Your task to perform on an android device: turn notification dots off Image 0: 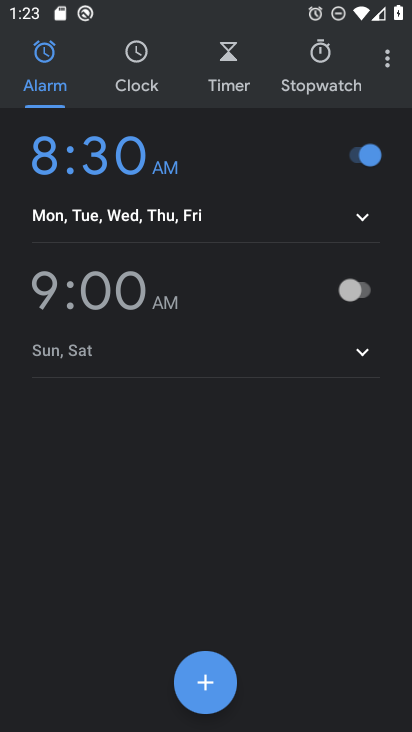
Step 0: press home button
Your task to perform on an android device: turn notification dots off Image 1: 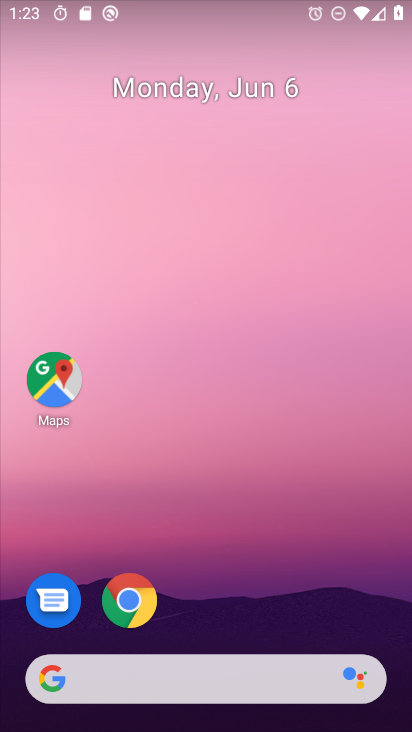
Step 1: drag from (270, 606) to (253, 212)
Your task to perform on an android device: turn notification dots off Image 2: 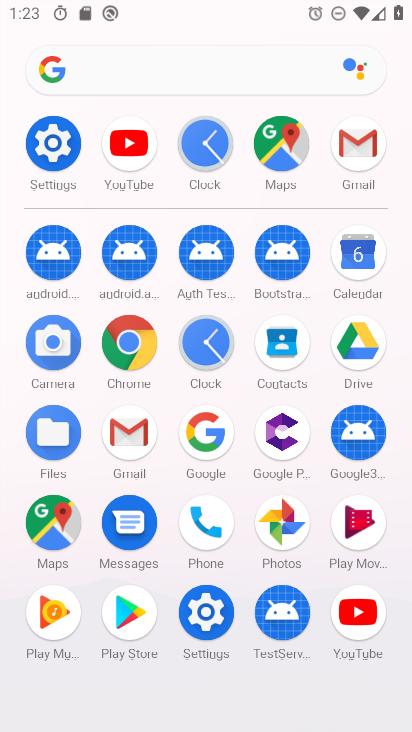
Step 2: click (55, 147)
Your task to perform on an android device: turn notification dots off Image 3: 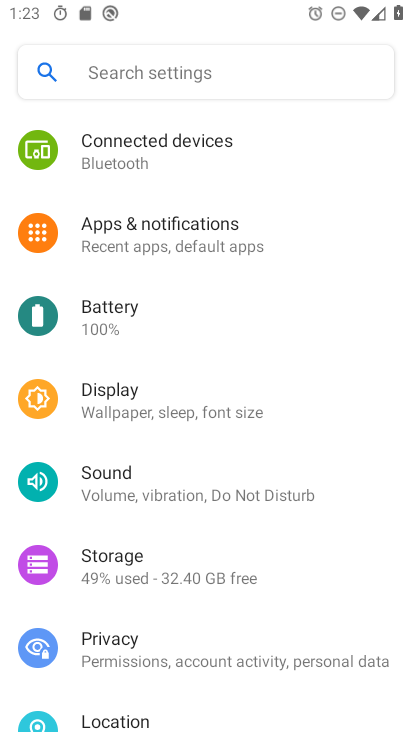
Step 3: click (200, 237)
Your task to perform on an android device: turn notification dots off Image 4: 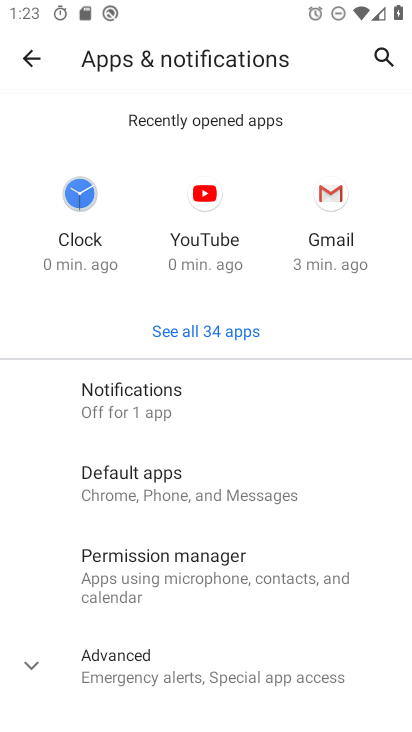
Step 4: click (199, 400)
Your task to perform on an android device: turn notification dots off Image 5: 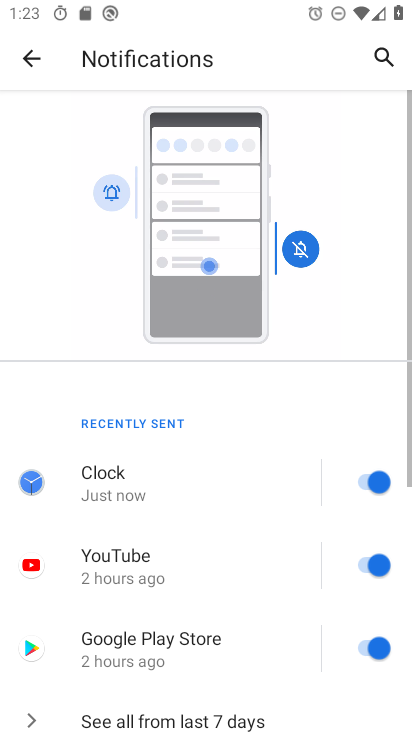
Step 5: drag from (299, 635) to (303, 212)
Your task to perform on an android device: turn notification dots off Image 6: 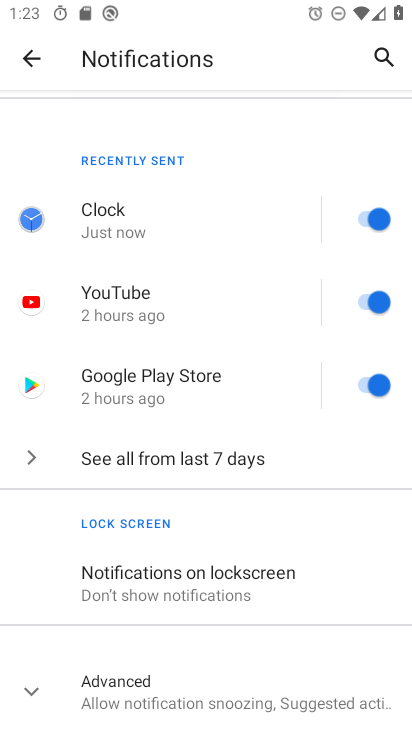
Step 6: drag from (238, 662) to (258, 357)
Your task to perform on an android device: turn notification dots off Image 7: 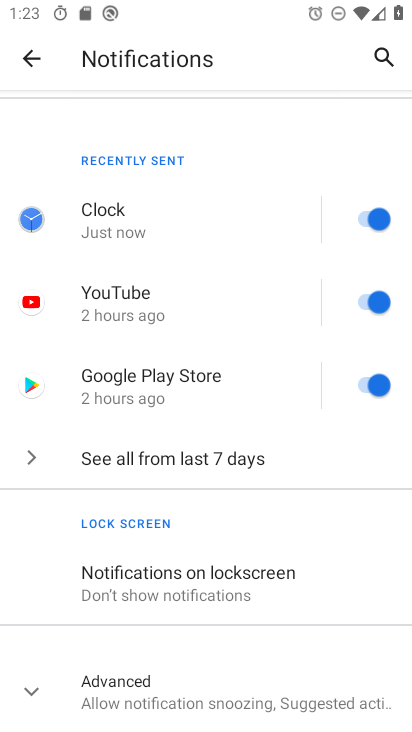
Step 7: click (210, 685)
Your task to perform on an android device: turn notification dots off Image 8: 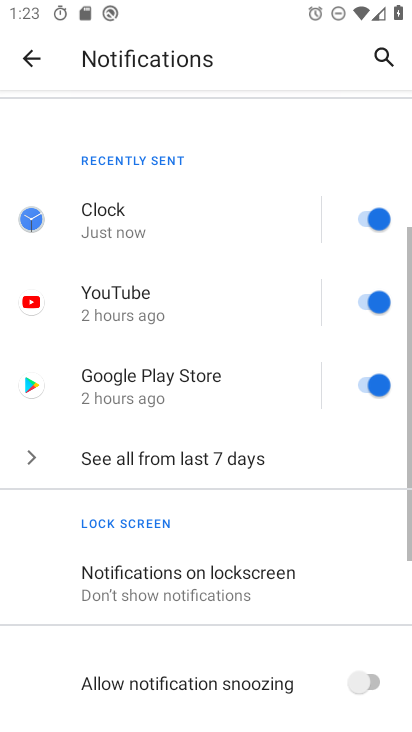
Step 8: drag from (220, 589) to (231, 229)
Your task to perform on an android device: turn notification dots off Image 9: 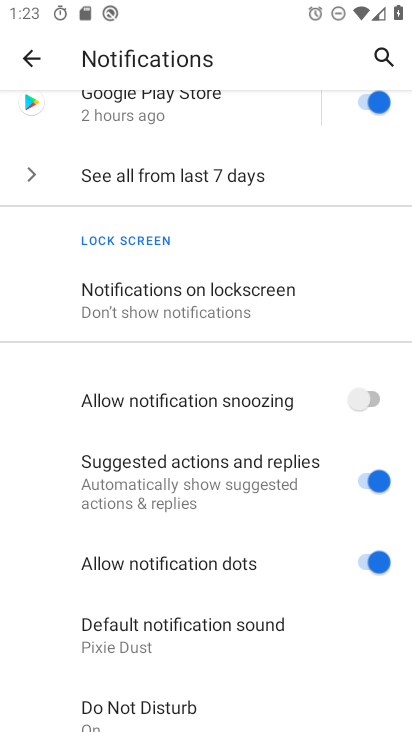
Step 9: drag from (282, 611) to (318, 325)
Your task to perform on an android device: turn notification dots off Image 10: 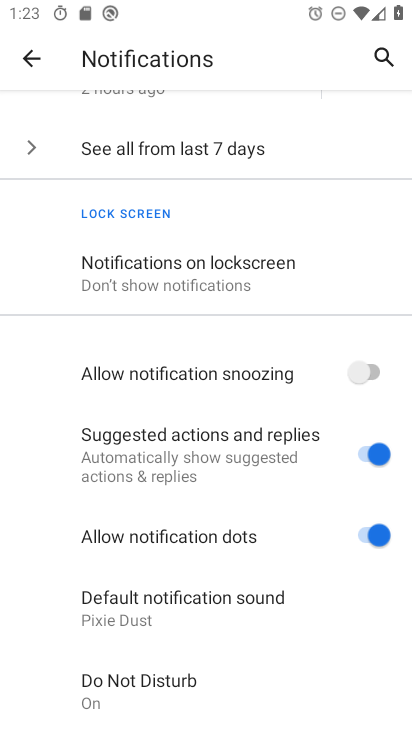
Step 10: click (356, 526)
Your task to perform on an android device: turn notification dots off Image 11: 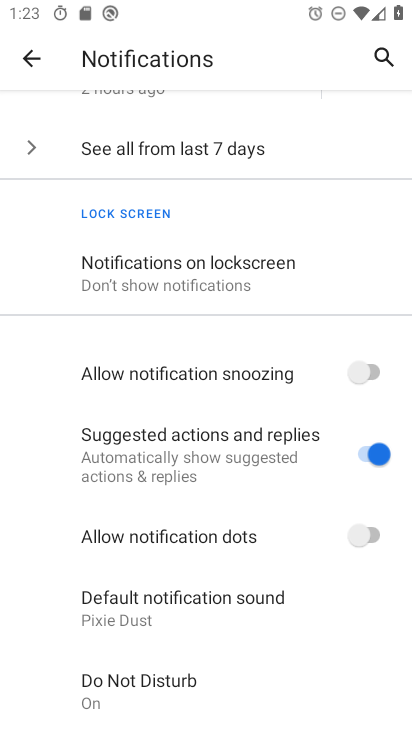
Step 11: task complete